Your task to perform on an android device: turn on airplane mode Image 0: 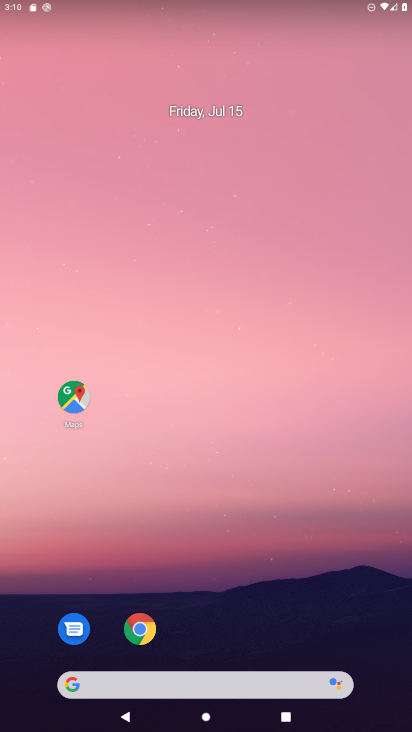
Step 0: drag from (224, 544) to (157, 0)
Your task to perform on an android device: turn on airplane mode Image 1: 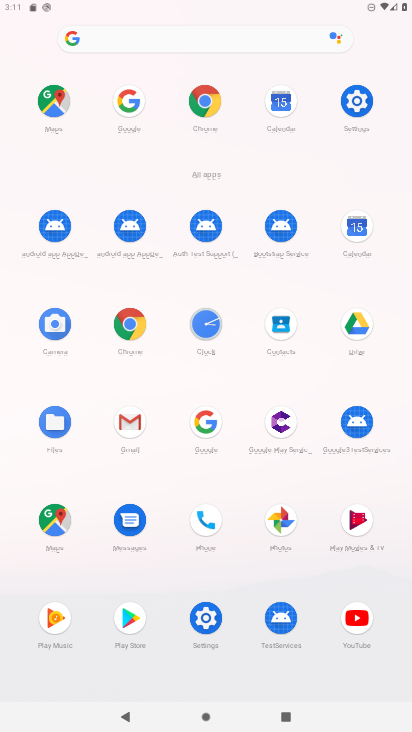
Step 1: click (366, 110)
Your task to perform on an android device: turn on airplane mode Image 2: 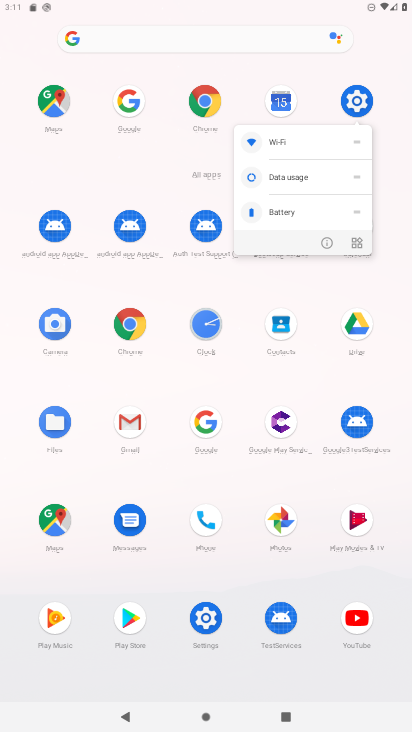
Step 2: click (340, 103)
Your task to perform on an android device: turn on airplane mode Image 3: 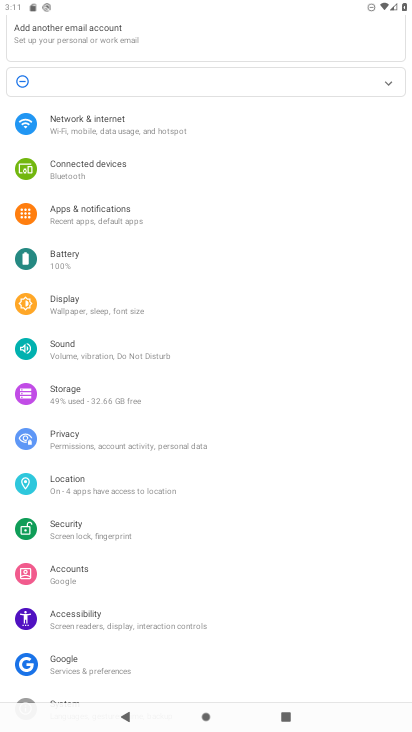
Step 3: click (72, 134)
Your task to perform on an android device: turn on airplane mode Image 4: 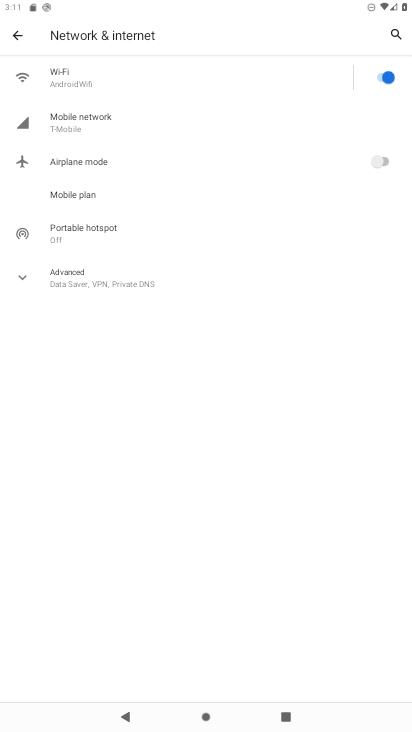
Step 4: click (82, 157)
Your task to perform on an android device: turn on airplane mode Image 5: 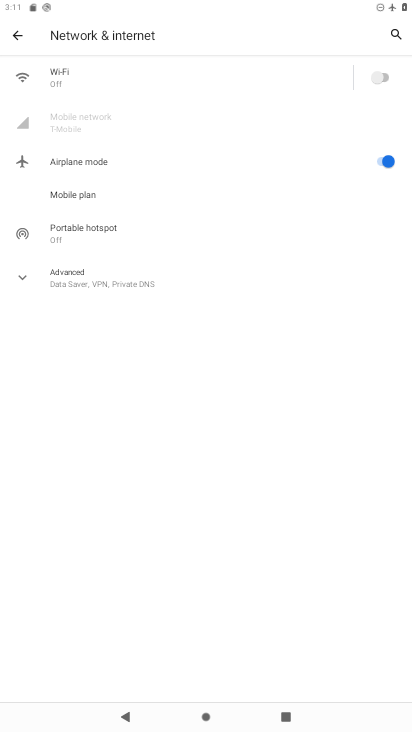
Step 5: task complete